Your task to perform on an android device: turn pop-ups on in chrome Image 0: 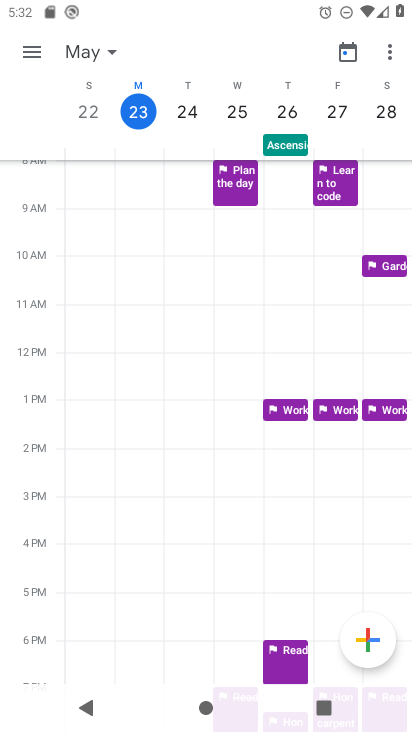
Step 0: press home button
Your task to perform on an android device: turn pop-ups on in chrome Image 1: 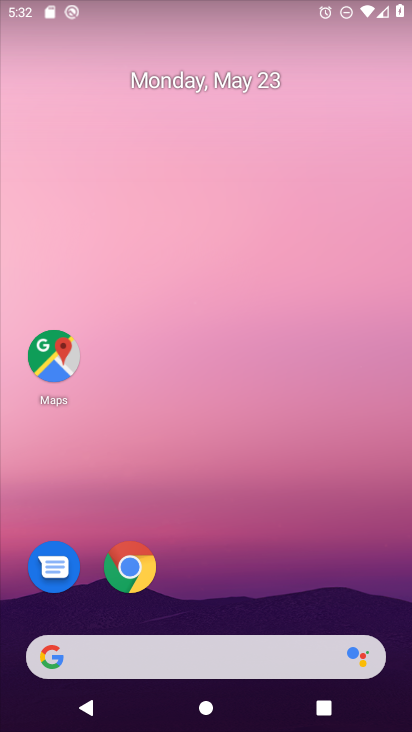
Step 1: click (128, 565)
Your task to perform on an android device: turn pop-ups on in chrome Image 2: 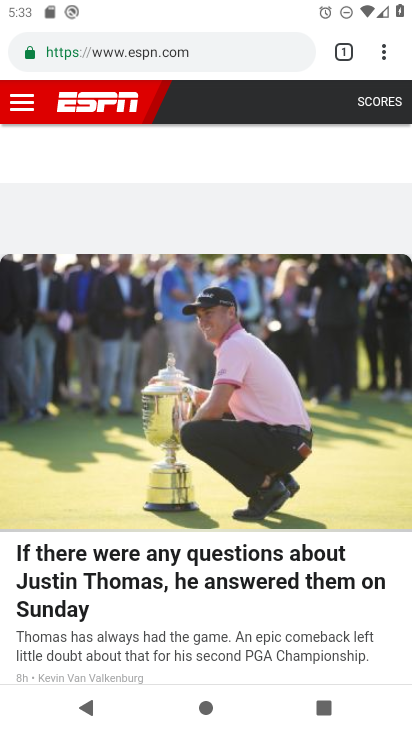
Step 2: click (384, 52)
Your task to perform on an android device: turn pop-ups on in chrome Image 3: 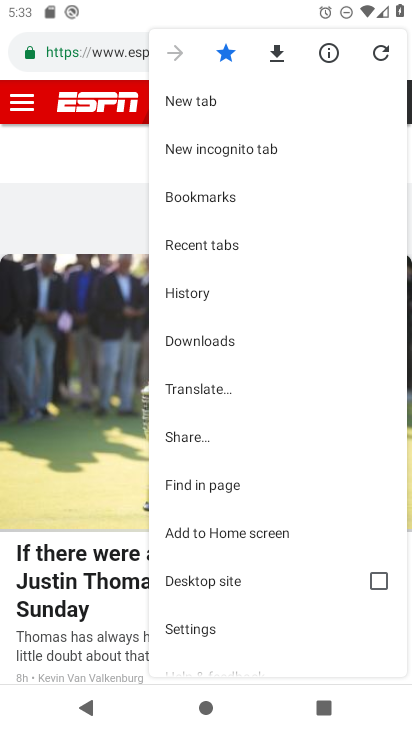
Step 3: click (195, 629)
Your task to perform on an android device: turn pop-ups on in chrome Image 4: 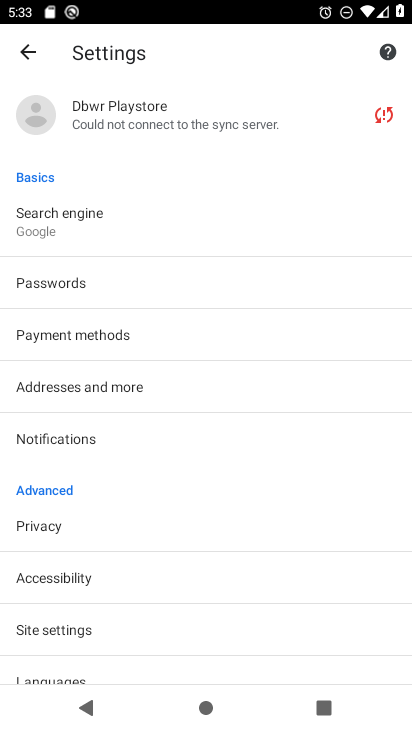
Step 4: click (78, 631)
Your task to perform on an android device: turn pop-ups on in chrome Image 5: 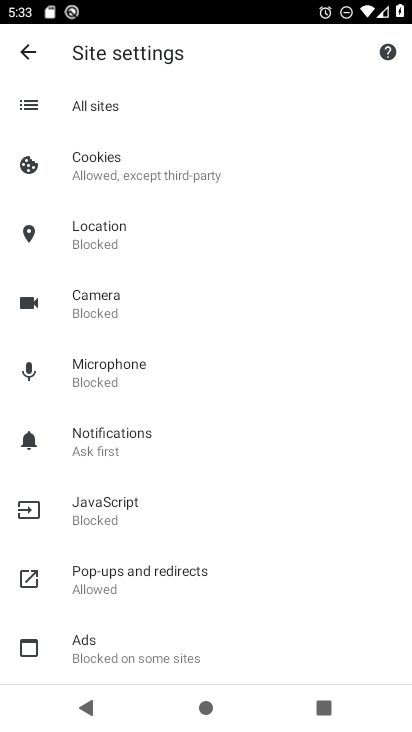
Step 5: click (125, 571)
Your task to perform on an android device: turn pop-ups on in chrome Image 6: 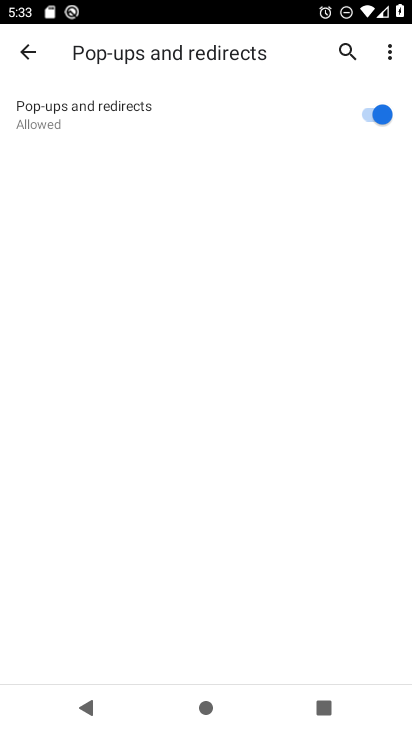
Step 6: task complete